Your task to perform on an android device: open the mobile data screen to see how much data has been used Image 0: 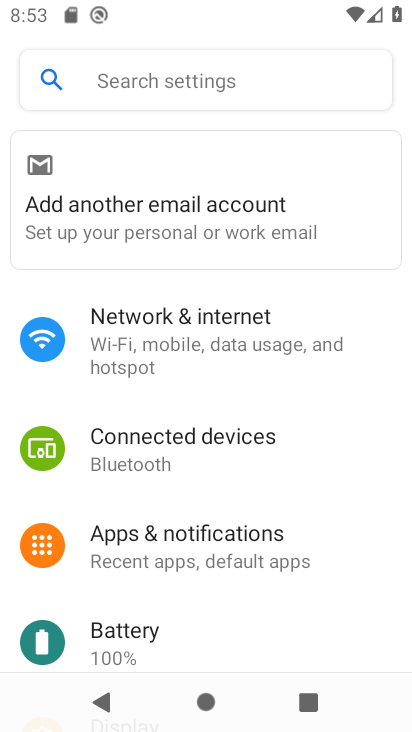
Step 0: click (133, 357)
Your task to perform on an android device: open the mobile data screen to see how much data has been used Image 1: 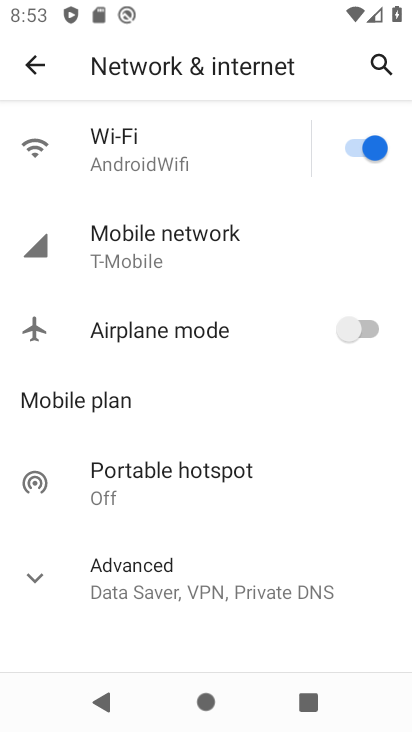
Step 1: click (131, 259)
Your task to perform on an android device: open the mobile data screen to see how much data has been used Image 2: 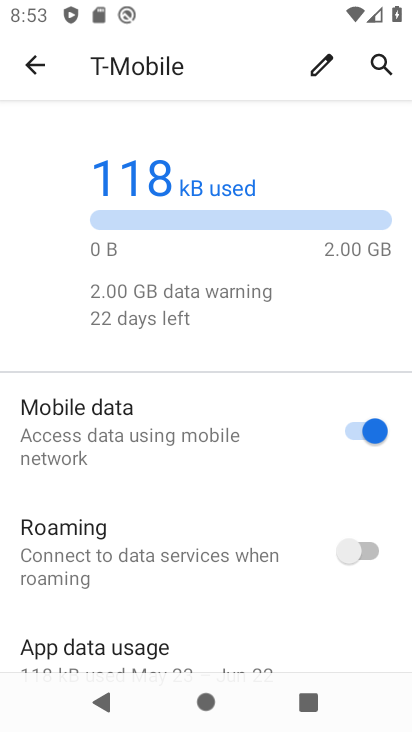
Step 2: task complete